Your task to perform on an android device: turn on javascript in the chrome app Image 0: 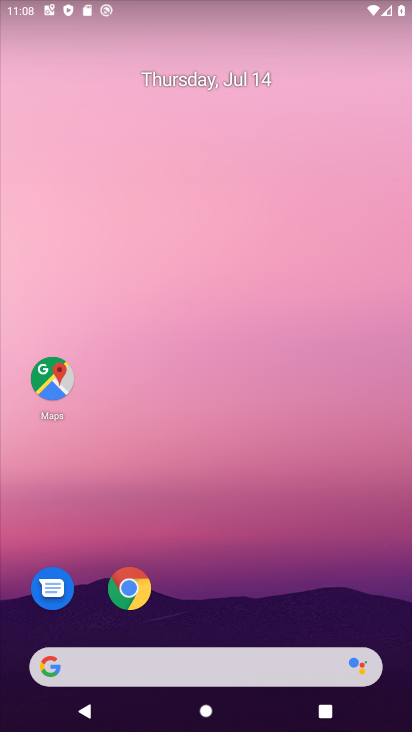
Step 0: click (130, 594)
Your task to perform on an android device: turn on javascript in the chrome app Image 1: 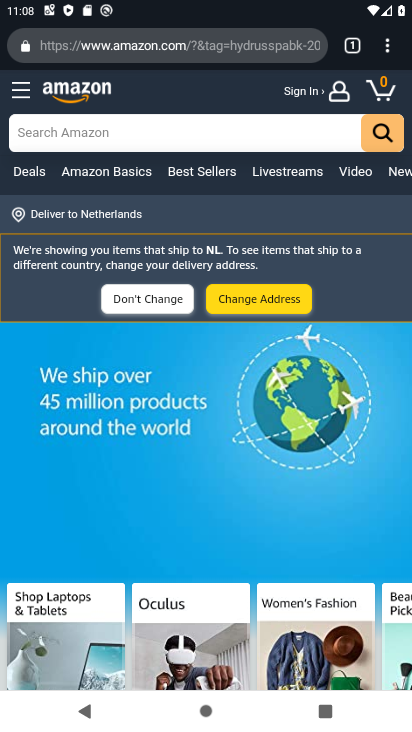
Step 1: click (383, 51)
Your task to perform on an android device: turn on javascript in the chrome app Image 2: 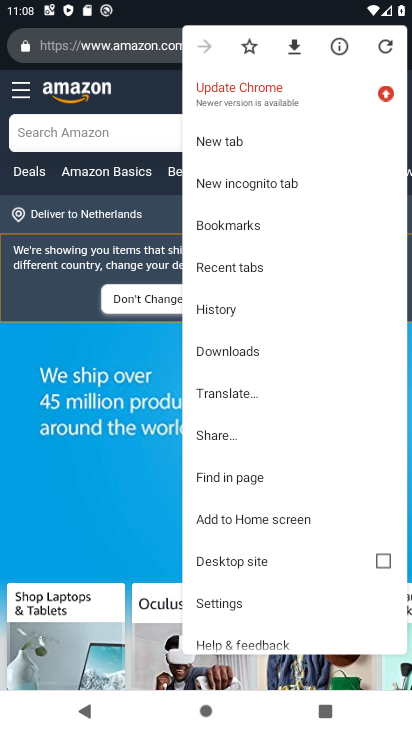
Step 2: click (233, 603)
Your task to perform on an android device: turn on javascript in the chrome app Image 3: 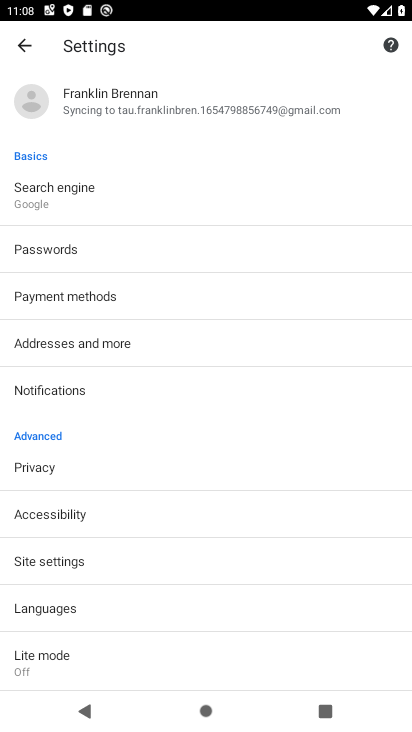
Step 3: click (50, 556)
Your task to perform on an android device: turn on javascript in the chrome app Image 4: 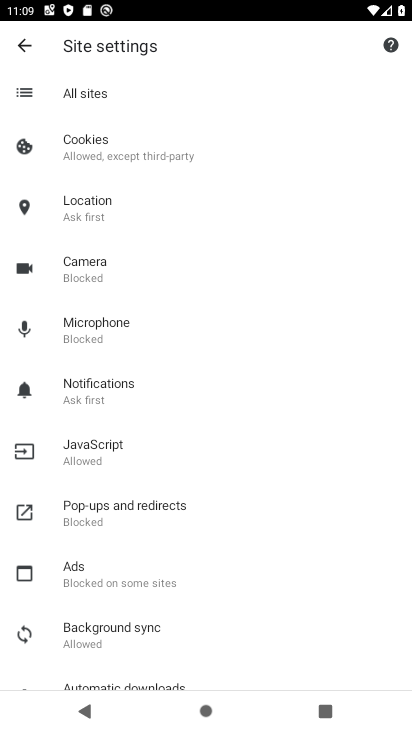
Step 4: click (74, 437)
Your task to perform on an android device: turn on javascript in the chrome app Image 5: 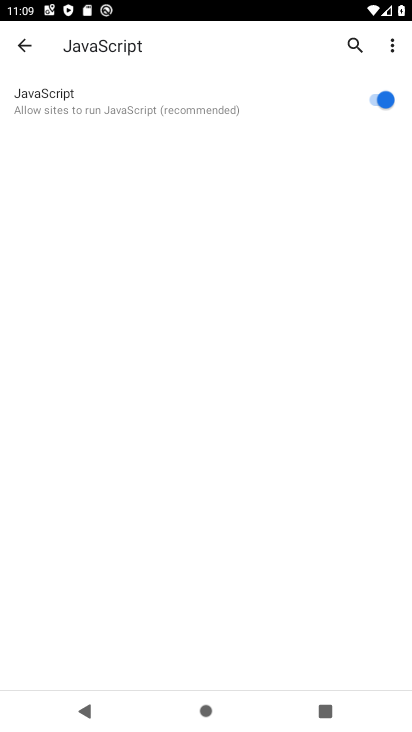
Step 5: task complete